Your task to perform on an android device: turn on the 24-hour format for clock Image 0: 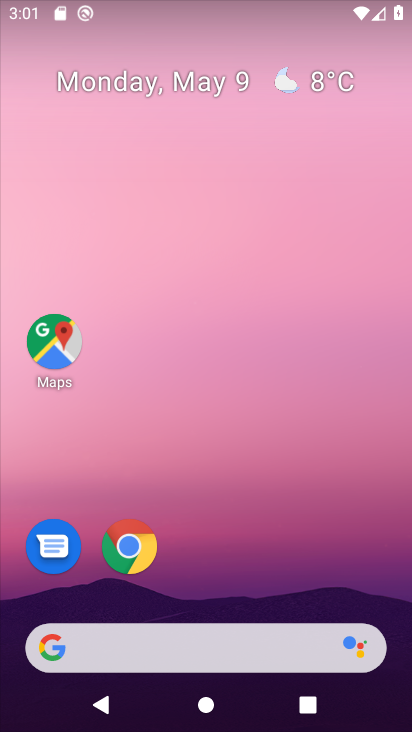
Step 0: drag from (267, 565) to (269, 34)
Your task to perform on an android device: turn on the 24-hour format for clock Image 1: 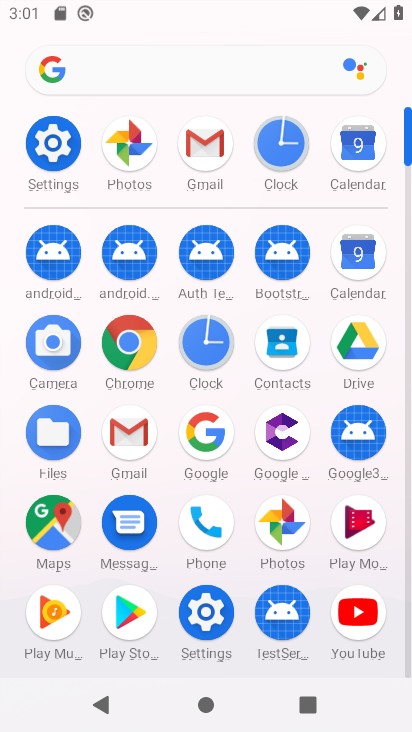
Step 1: click (282, 143)
Your task to perform on an android device: turn on the 24-hour format for clock Image 2: 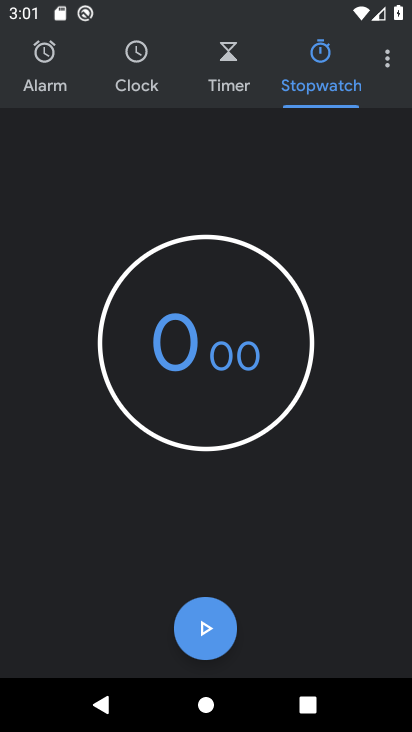
Step 2: click (380, 65)
Your task to perform on an android device: turn on the 24-hour format for clock Image 3: 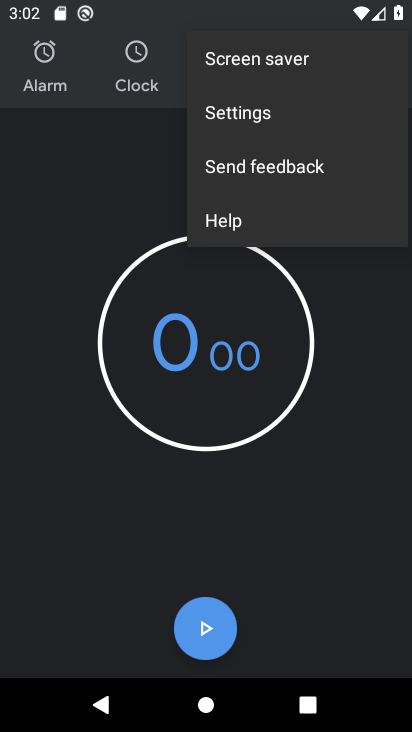
Step 3: click (279, 111)
Your task to perform on an android device: turn on the 24-hour format for clock Image 4: 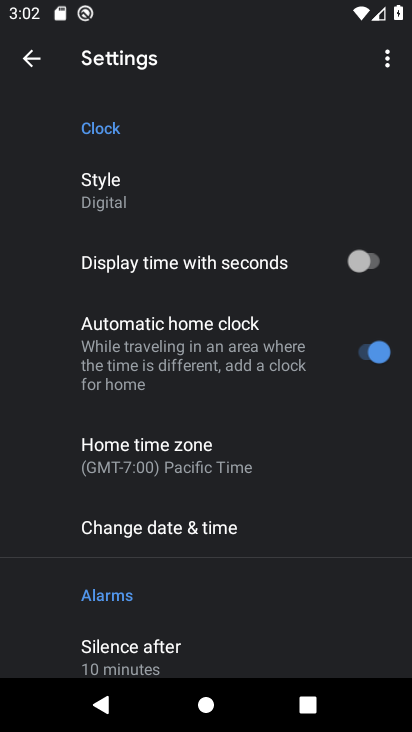
Step 4: click (250, 521)
Your task to perform on an android device: turn on the 24-hour format for clock Image 5: 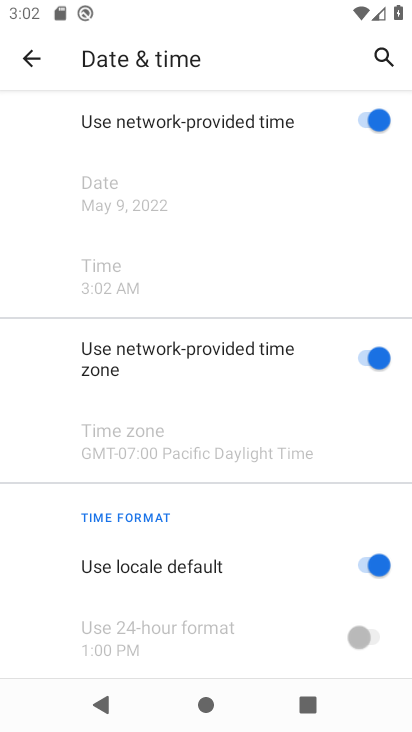
Step 5: click (365, 559)
Your task to perform on an android device: turn on the 24-hour format for clock Image 6: 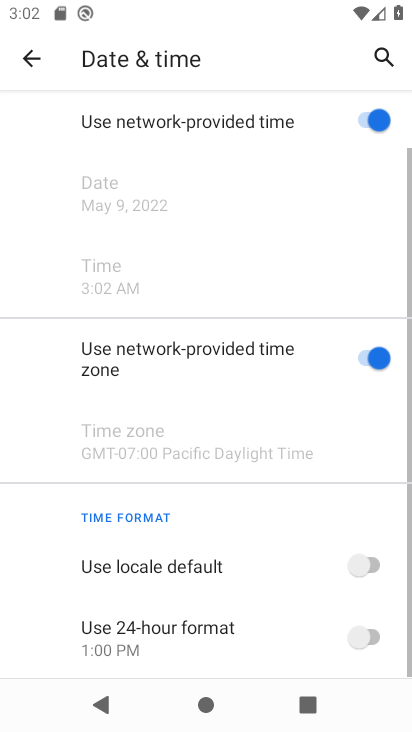
Step 6: click (361, 627)
Your task to perform on an android device: turn on the 24-hour format for clock Image 7: 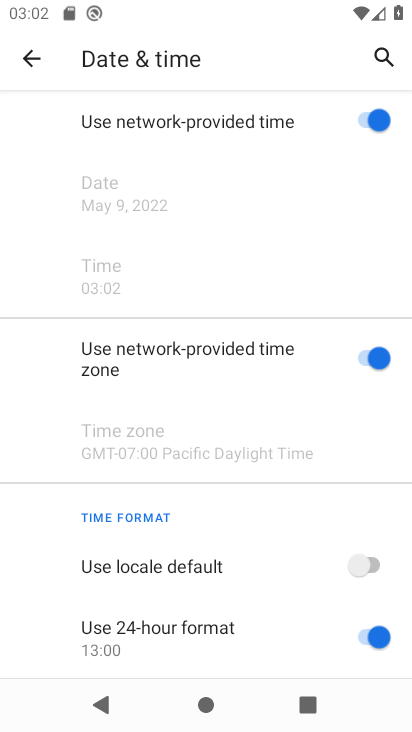
Step 7: task complete